Your task to perform on an android device: set an alarm Image 0: 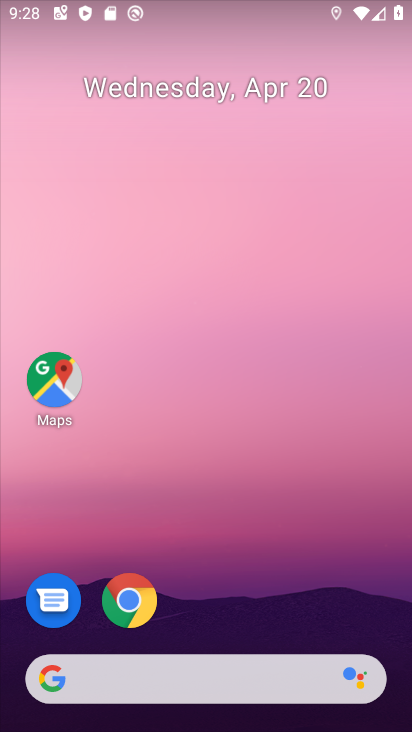
Step 0: drag from (224, 654) to (217, 76)
Your task to perform on an android device: set an alarm Image 1: 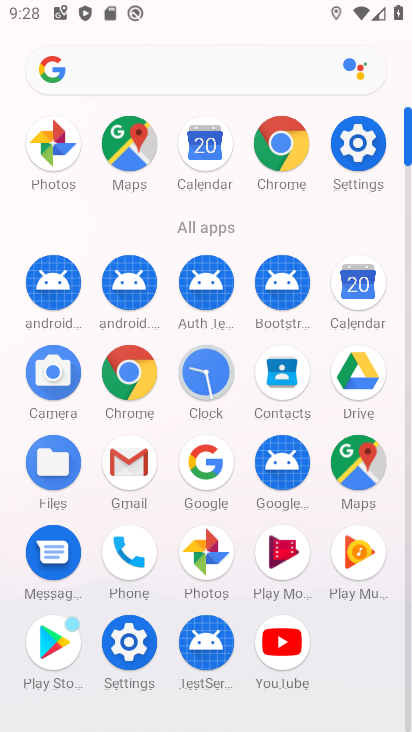
Step 1: click (211, 383)
Your task to perform on an android device: set an alarm Image 2: 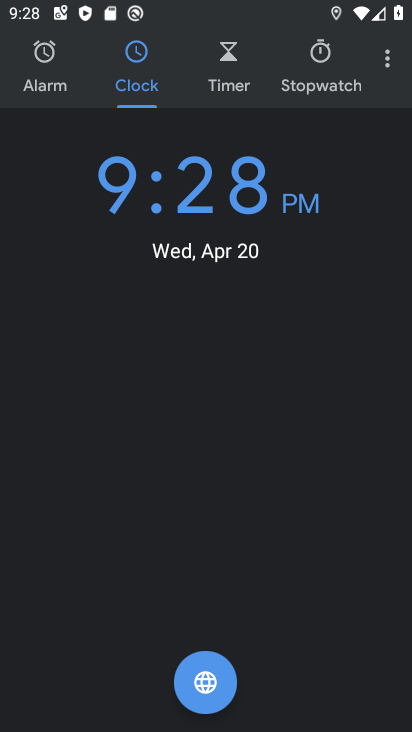
Step 2: click (48, 69)
Your task to perform on an android device: set an alarm Image 3: 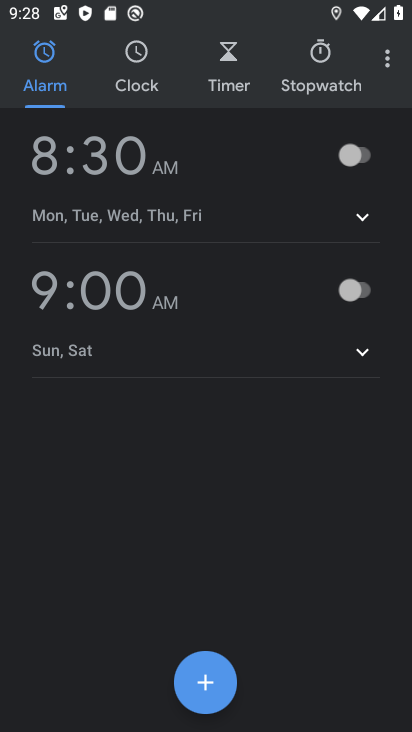
Step 3: click (209, 670)
Your task to perform on an android device: set an alarm Image 4: 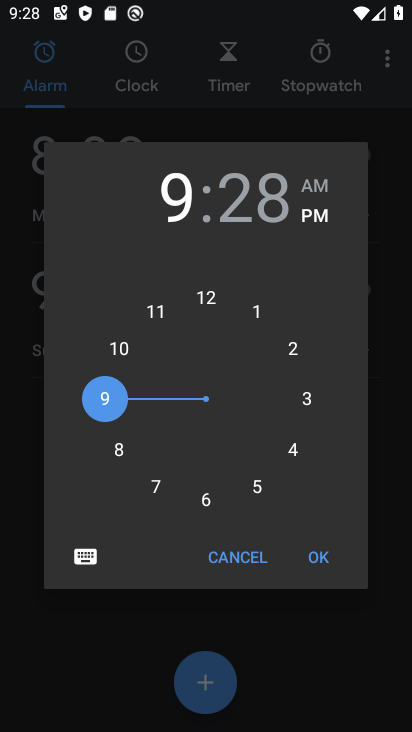
Step 4: click (329, 567)
Your task to perform on an android device: set an alarm Image 5: 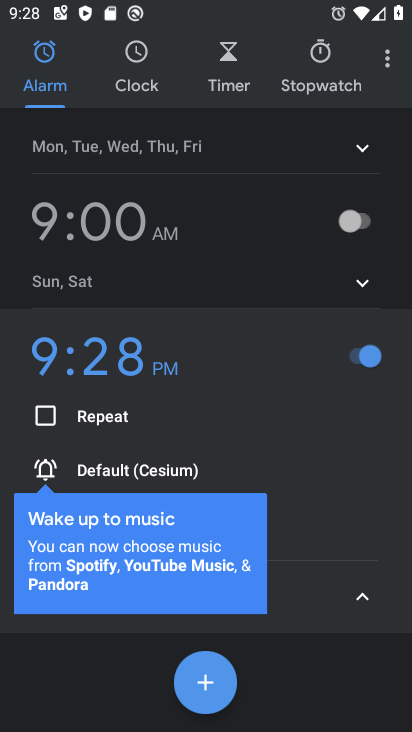
Step 5: task complete